Your task to perform on an android device: toggle translation in the chrome app Image 0: 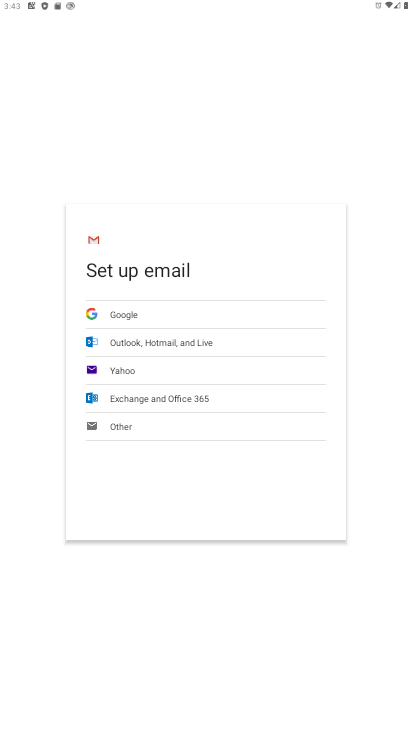
Step 0: press home button
Your task to perform on an android device: toggle translation in the chrome app Image 1: 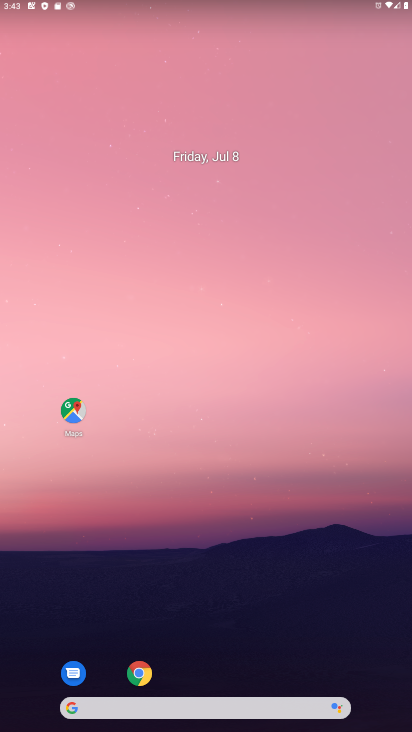
Step 1: click (140, 673)
Your task to perform on an android device: toggle translation in the chrome app Image 2: 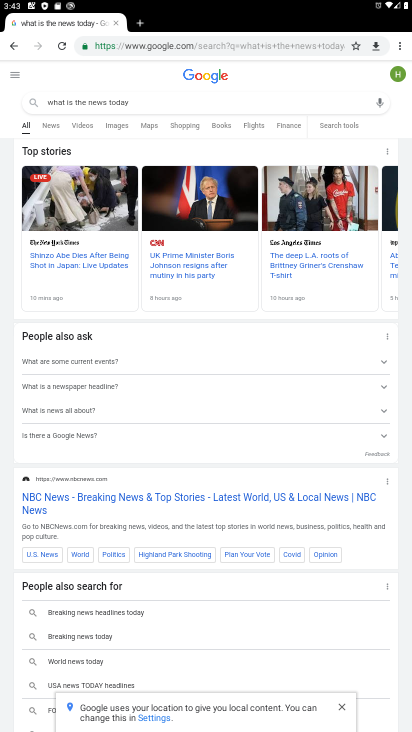
Step 2: click (396, 46)
Your task to perform on an android device: toggle translation in the chrome app Image 3: 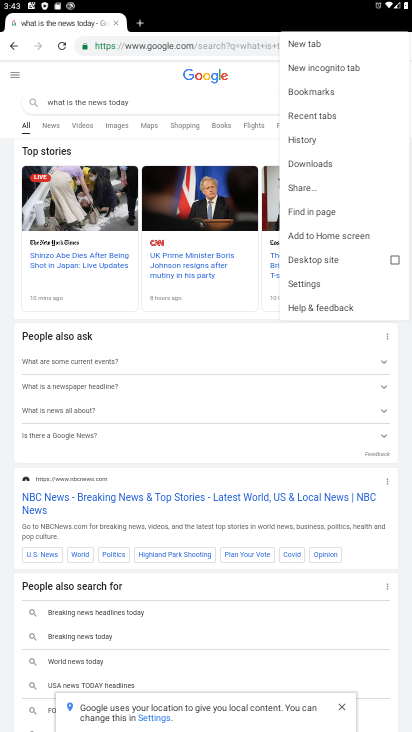
Step 3: click (301, 280)
Your task to perform on an android device: toggle translation in the chrome app Image 4: 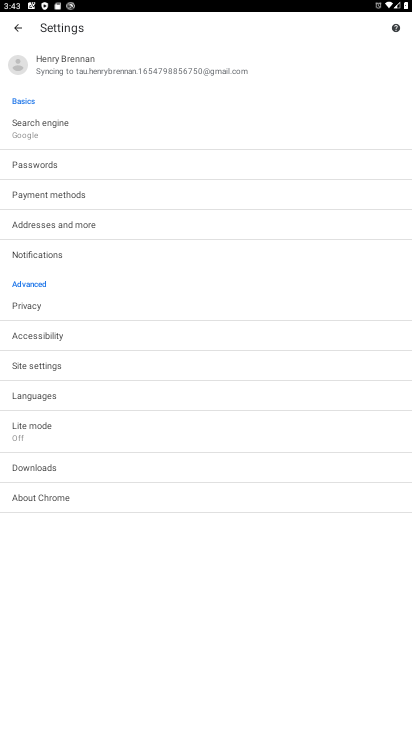
Step 4: click (70, 396)
Your task to perform on an android device: toggle translation in the chrome app Image 5: 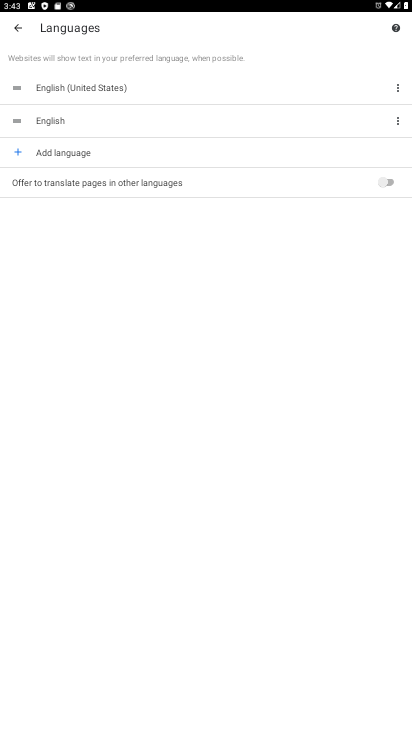
Step 5: click (386, 179)
Your task to perform on an android device: toggle translation in the chrome app Image 6: 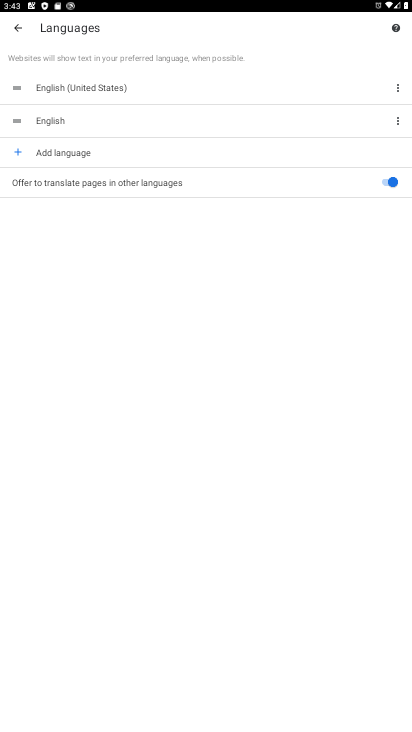
Step 6: task complete